Your task to perform on an android device: How much does a 2 bedroom apartment rent for in Chicago? Image 0: 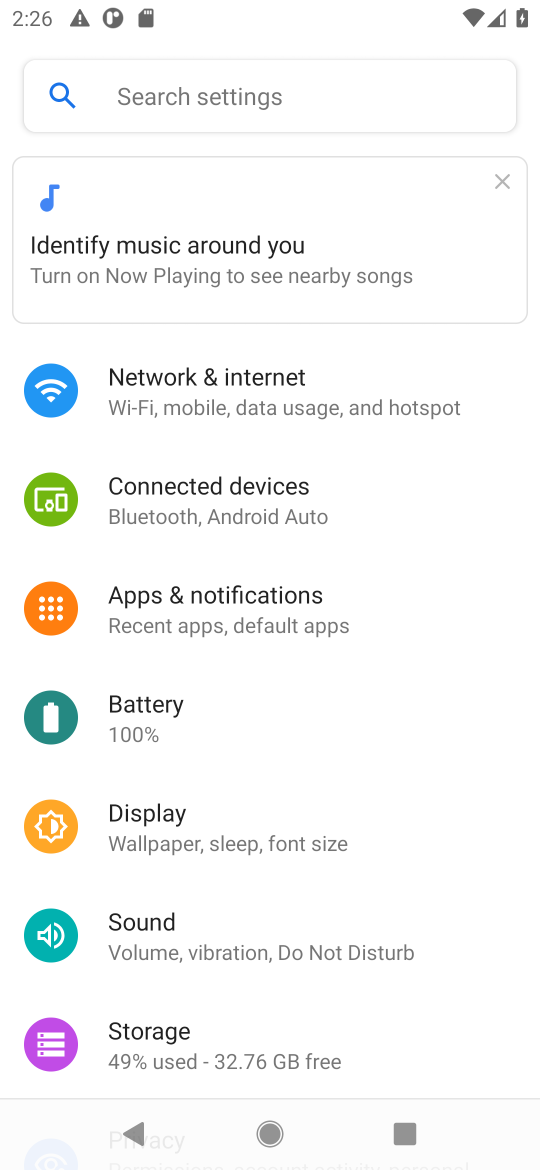
Step 0: press home button
Your task to perform on an android device: How much does a 2 bedroom apartment rent for in Chicago? Image 1: 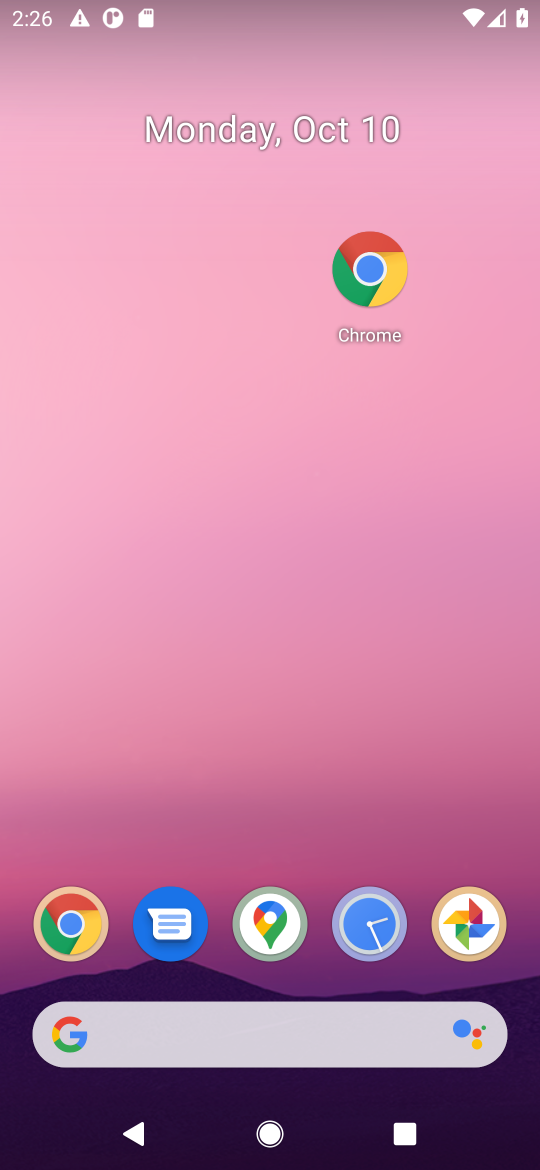
Step 1: drag from (316, 849) to (455, 703)
Your task to perform on an android device: How much does a 2 bedroom apartment rent for in Chicago? Image 2: 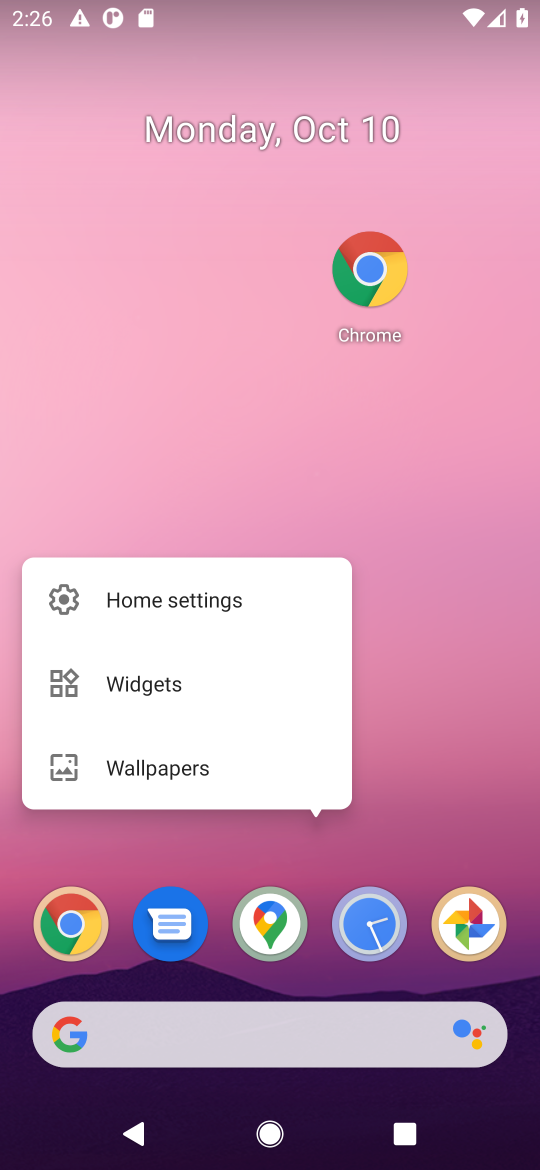
Step 2: click (362, 826)
Your task to perform on an android device: How much does a 2 bedroom apartment rent for in Chicago? Image 3: 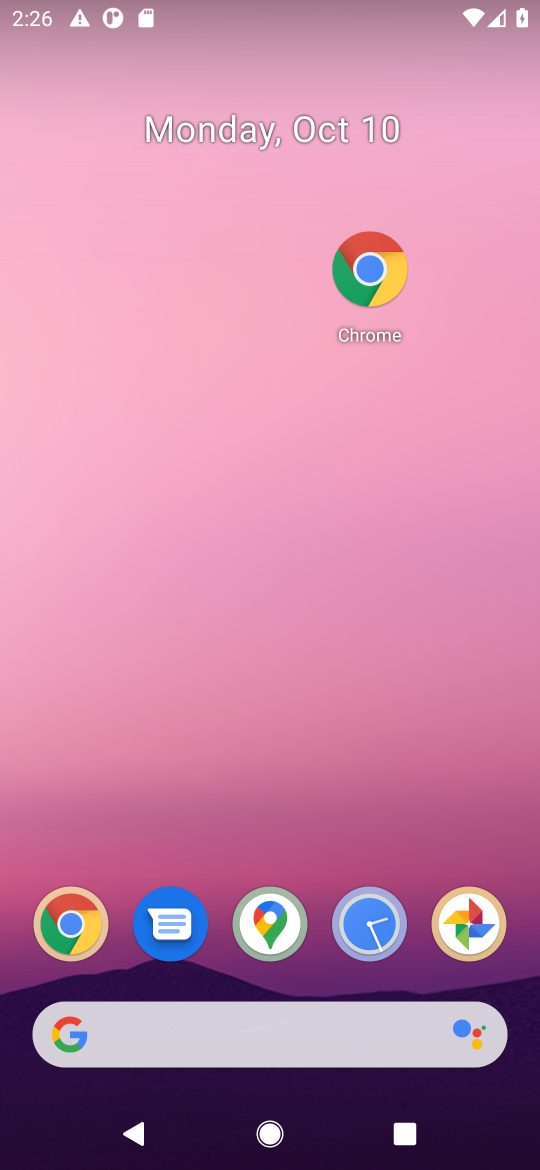
Step 3: drag from (427, 886) to (530, 60)
Your task to perform on an android device: How much does a 2 bedroom apartment rent for in Chicago? Image 4: 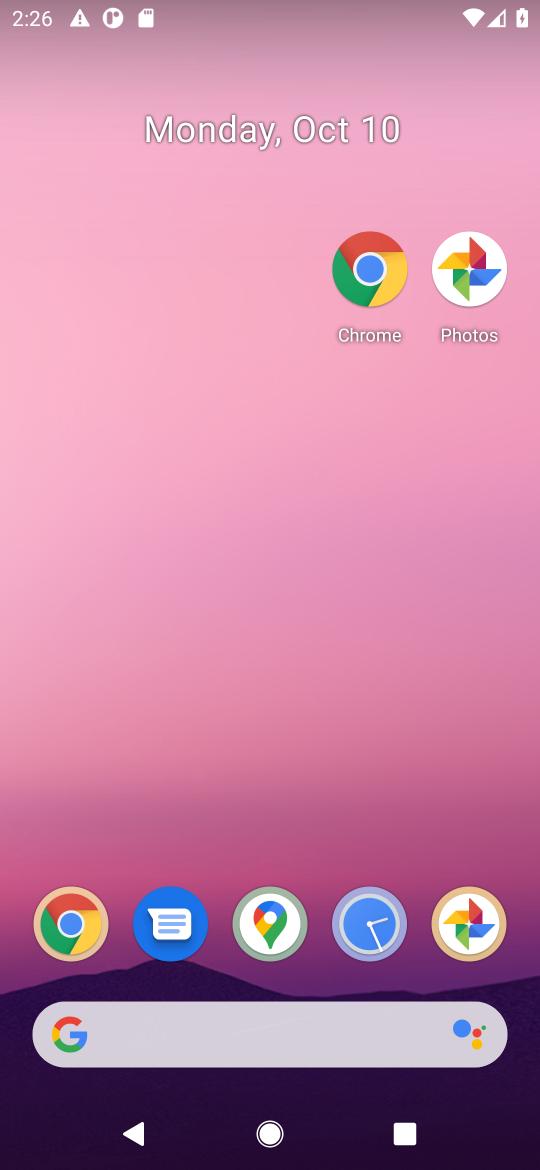
Step 4: drag from (422, 874) to (436, 67)
Your task to perform on an android device: How much does a 2 bedroom apartment rent for in Chicago? Image 5: 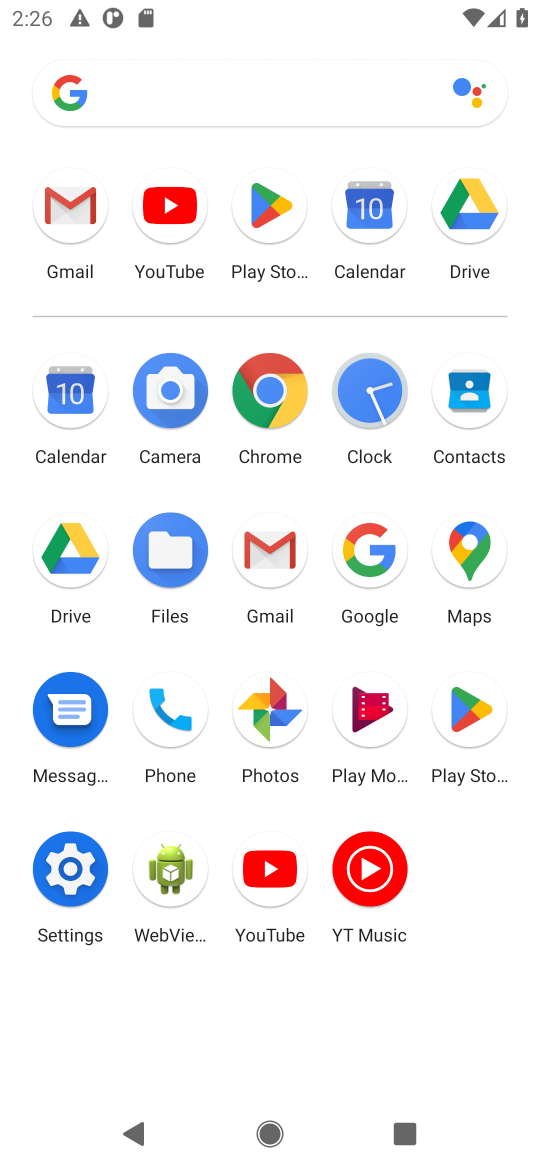
Step 5: click (271, 385)
Your task to perform on an android device: How much does a 2 bedroom apartment rent for in Chicago? Image 6: 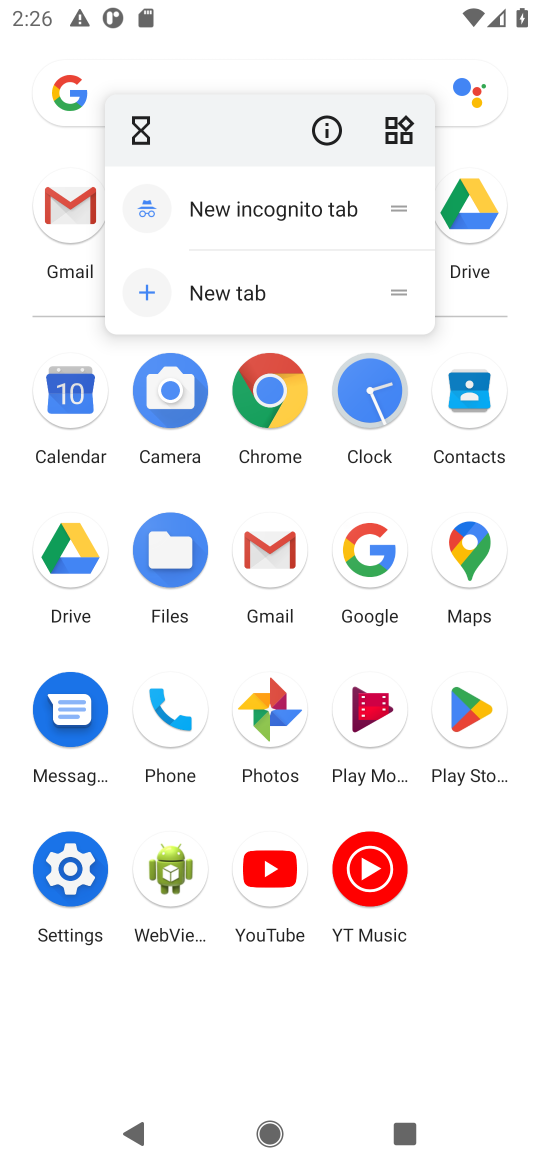
Step 6: click (282, 386)
Your task to perform on an android device: How much does a 2 bedroom apartment rent for in Chicago? Image 7: 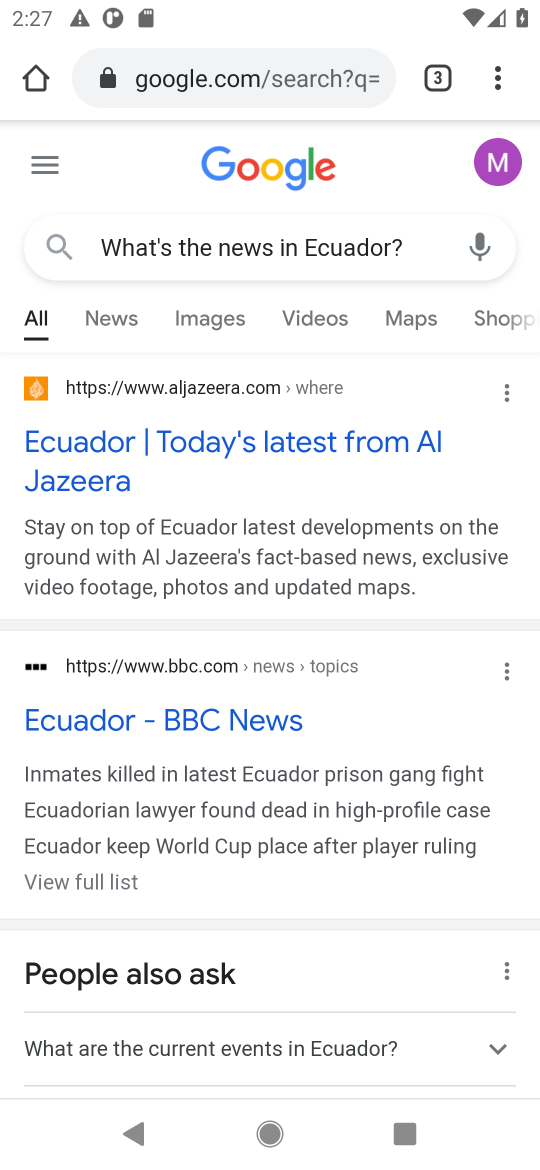
Step 7: click (228, 61)
Your task to perform on an android device: How much does a 2 bedroom apartment rent for in Chicago? Image 8: 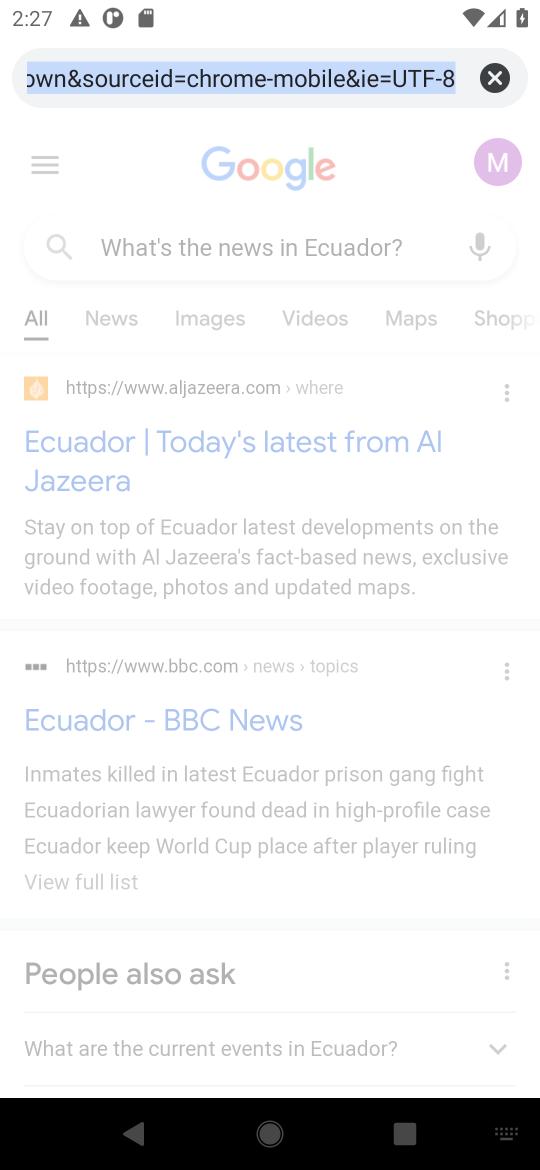
Step 8: click (490, 66)
Your task to perform on an android device: How much does a 2 bedroom apartment rent for in Chicago? Image 9: 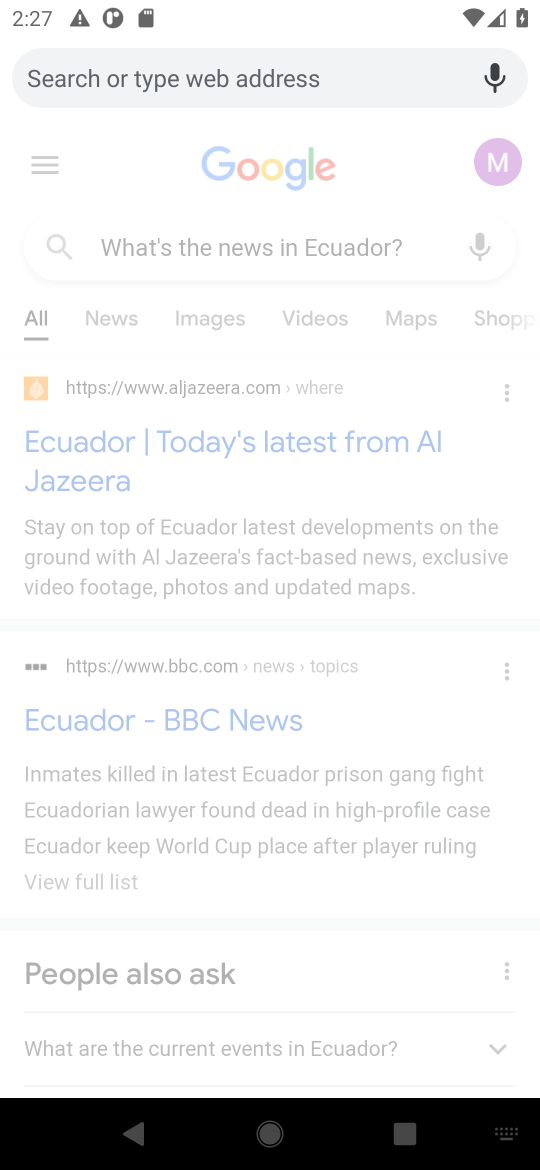
Step 9: type "How much does a 2 bedroom apartment rent for in Chicago?"
Your task to perform on an android device: How much does a 2 bedroom apartment rent for in Chicago? Image 10: 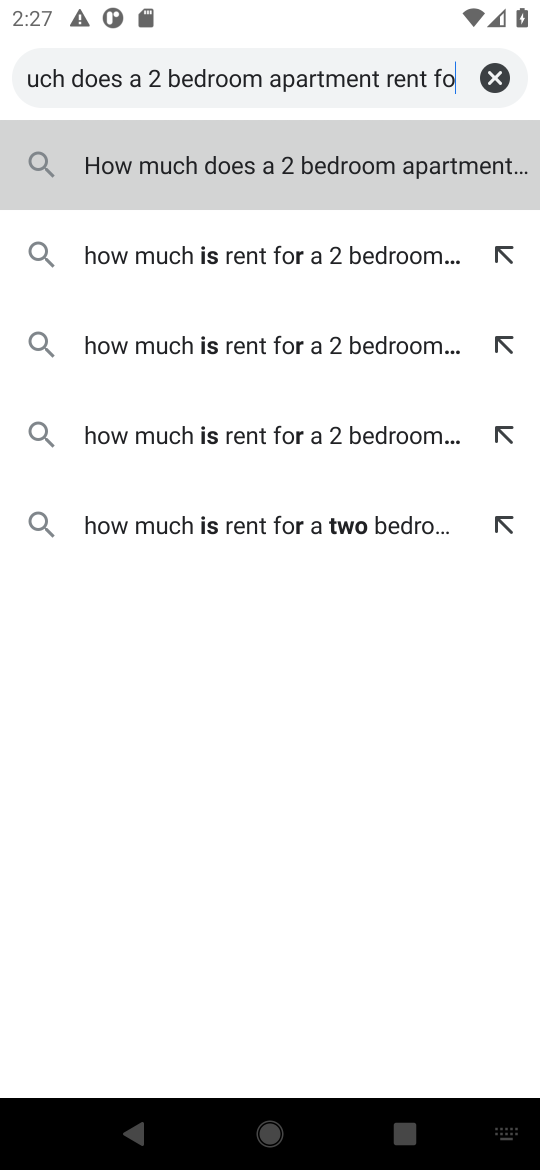
Step 10: click (198, 164)
Your task to perform on an android device: How much does a 2 bedroom apartment rent for in Chicago? Image 11: 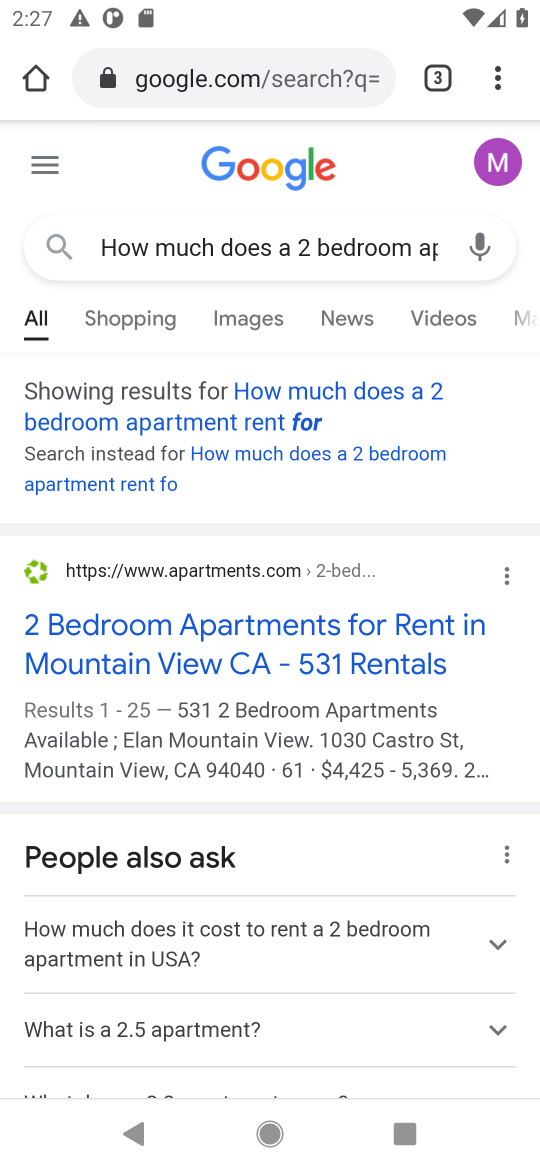
Step 11: task complete